Your task to perform on an android device: turn on location history Image 0: 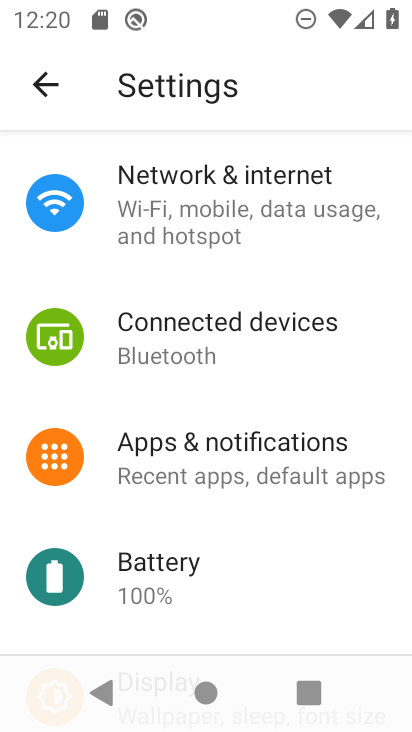
Step 0: press home button
Your task to perform on an android device: turn on location history Image 1: 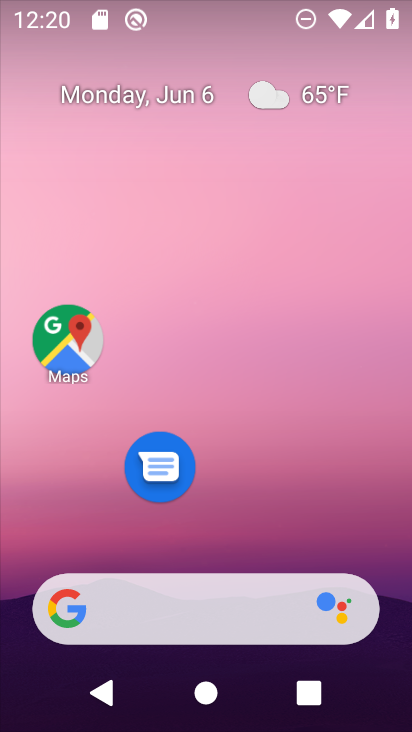
Step 1: click (60, 358)
Your task to perform on an android device: turn on location history Image 2: 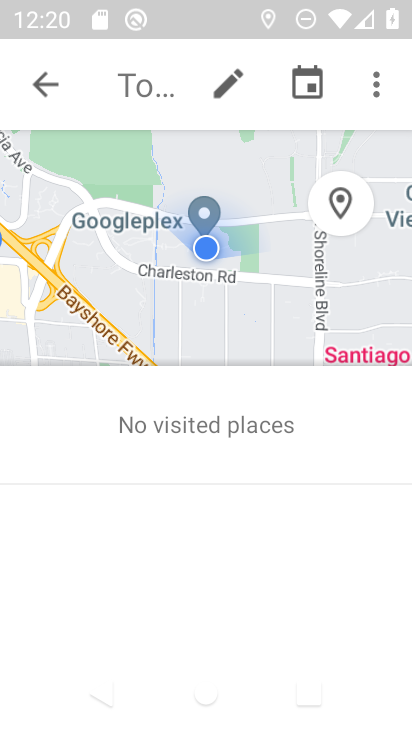
Step 2: click (45, 79)
Your task to perform on an android device: turn on location history Image 3: 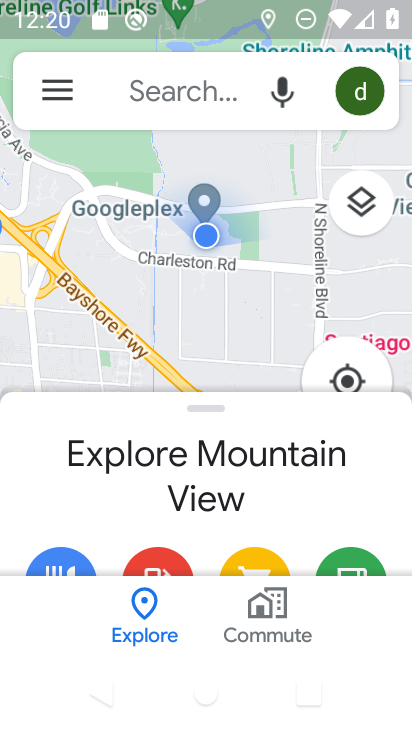
Step 3: click (45, 79)
Your task to perform on an android device: turn on location history Image 4: 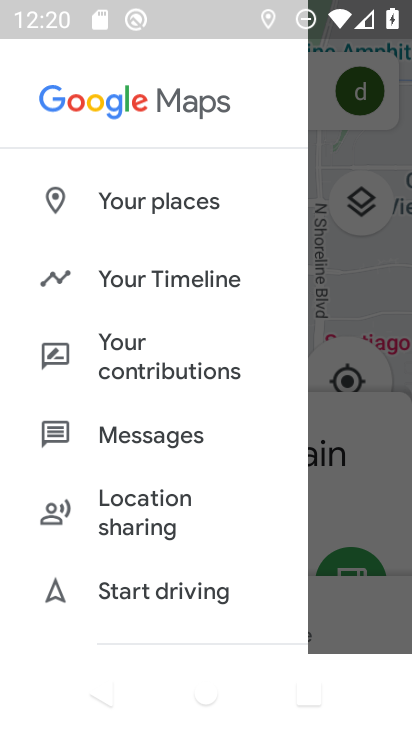
Step 4: click (177, 274)
Your task to perform on an android device: turn on location history Image 5: 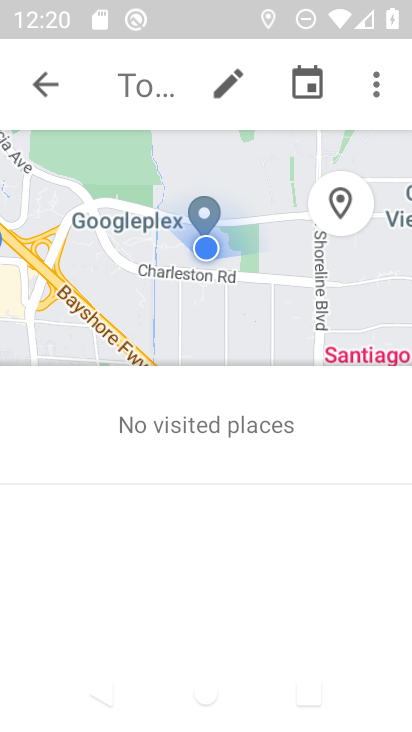
Step 5: click (376, 95)
Your task to perform on an android device: turn on location history Image 6: 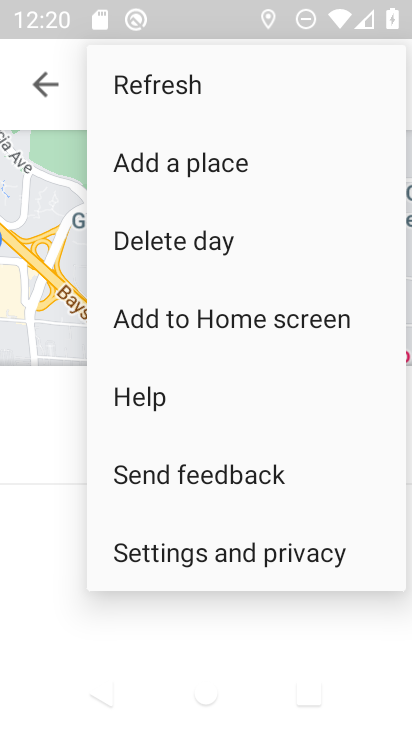
Step 6: click (289, 562)
Your task to perform on an android device: turn on location history Image 7: 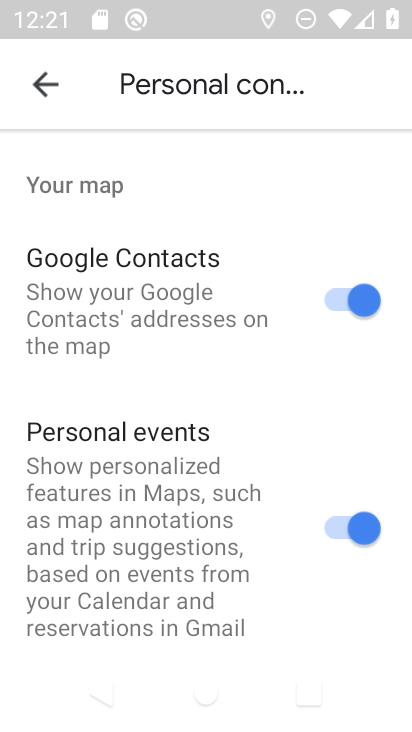
Step 7: drag from (303, 621) to (165, 274)
Your task to perform on an android device: turn on location history Image 8: 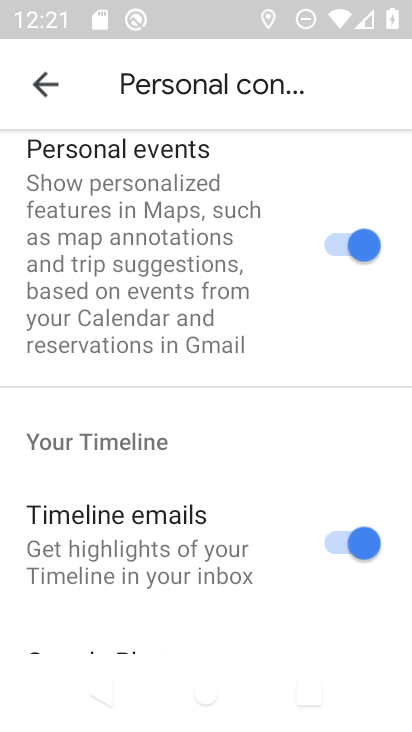
Step 8: drag from (212, 490) to (187, 170)
Your task to perform on an android device: turn on location history Image 9: 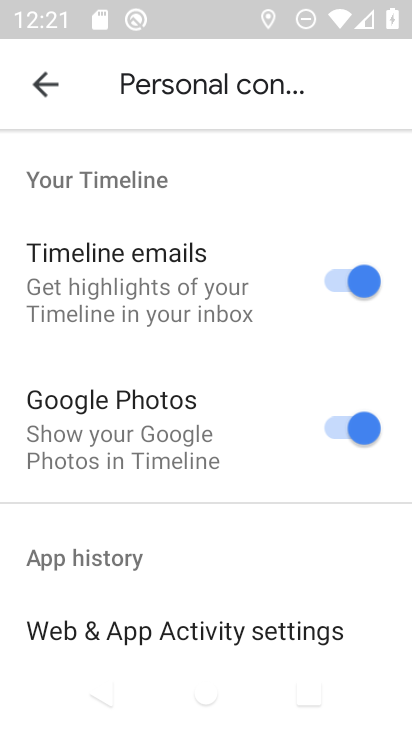
Step 9: drag from (77, 569) to (170, 180)
Your task to perform on an android device: turn on location history Image 10: 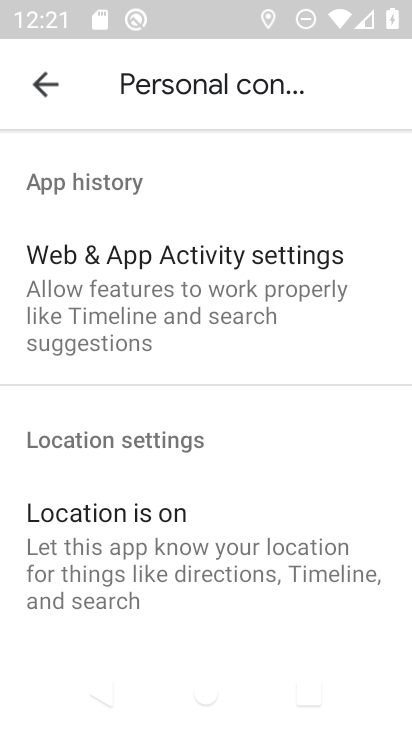
Step 10: drag from (167, 644) to (138, 247)
Your task to perform on an android device: turn on location history Image 11: 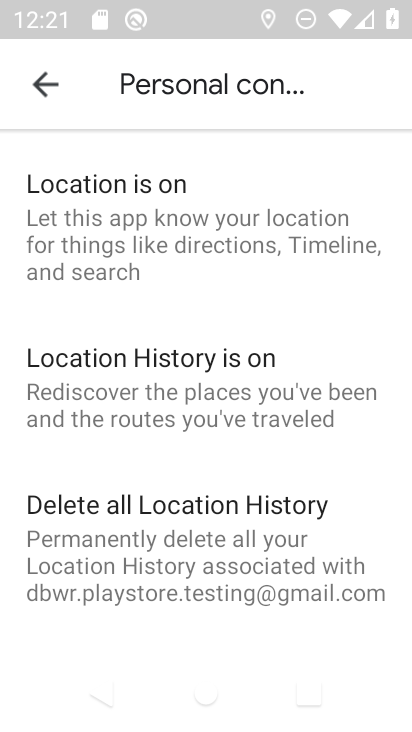
Step 11: click (178, 440)
Your task to perform on an android device: turn on location history Image 12: 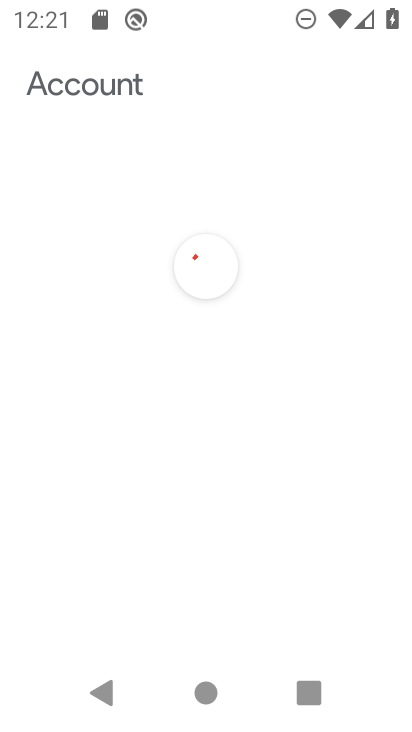
Step 12: drag from (233, 544) to (131, 166)
Your task to perform on an android device: turn on location history Image 13: 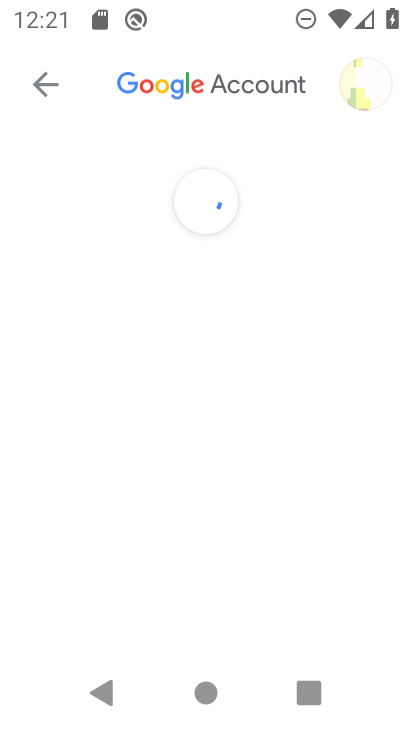
Step 13: drag from (212, 553) to (157, 209)
Your task to perform on an android device: turn on location history Image 14: 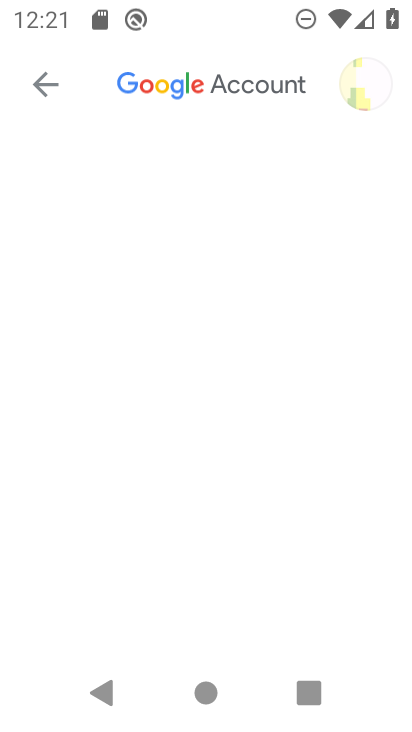
Step 14: drag from (167, 464) to (167, 347)
Your task to perform on an android device: turn on location history Image 15: 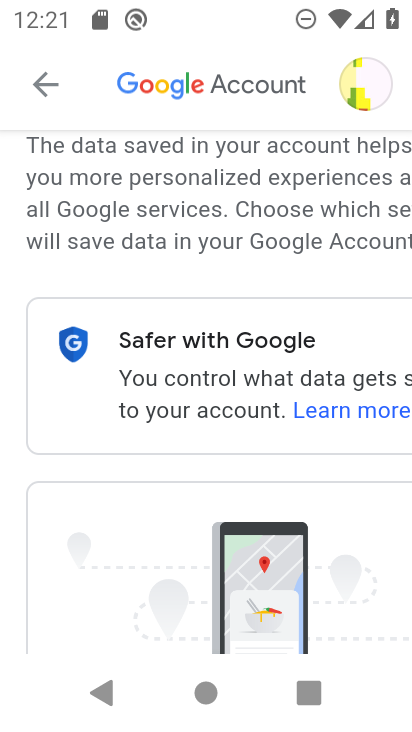
Step 15: drag from (211, 498) to (163, 174)
Your task to perform on an android device: turn on location history Image 16: 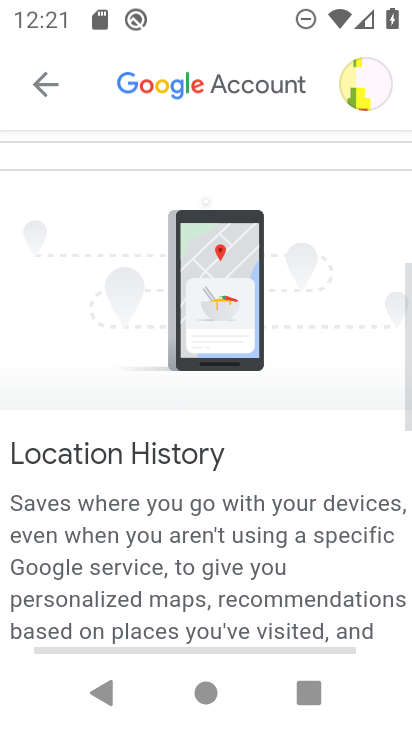
Step 16: drag from (379, 567) to (67, 10)
Your task to perform on an android device: turn on location history Image 17: 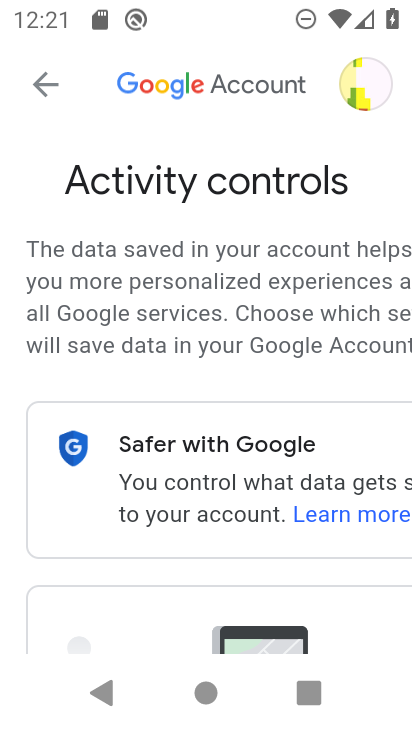
Step 17: drag from (308, 551) to (89, 174)
Your task to perform on an android device: turn on location history Image 18: 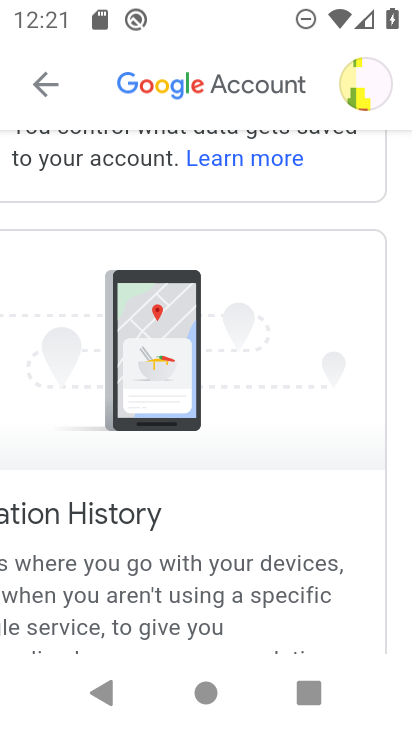
Step 18: drag from (237, 595) to (172, 235)
Your task to perform on an android device: turn on location history Image 19: 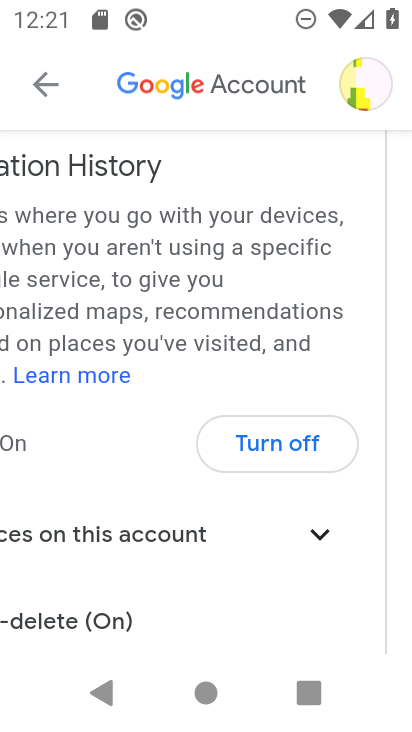
Step 19: click (286, 448)
Your task to perform on an android device: turn on location history Image 20: 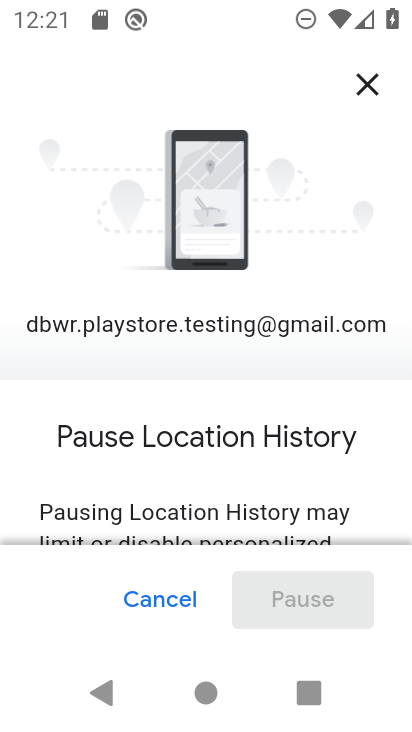
Step 20: click (167, 612)
Your task to perform on an android device: turn on location history Image 21: 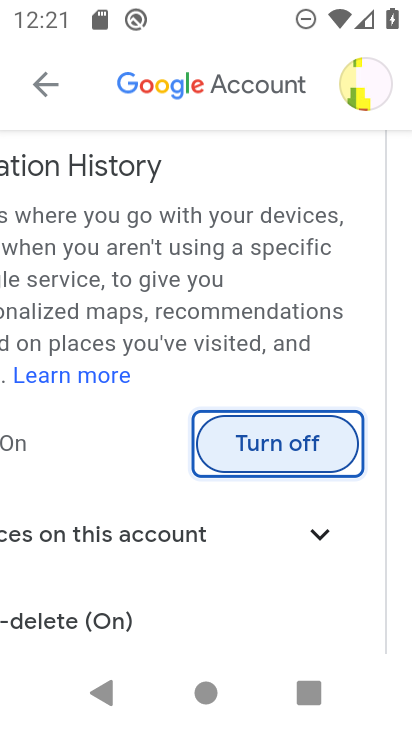
Step 21: task complete